Your task to perform on an android device: turn on priority inbox in the gmail app Image 0: 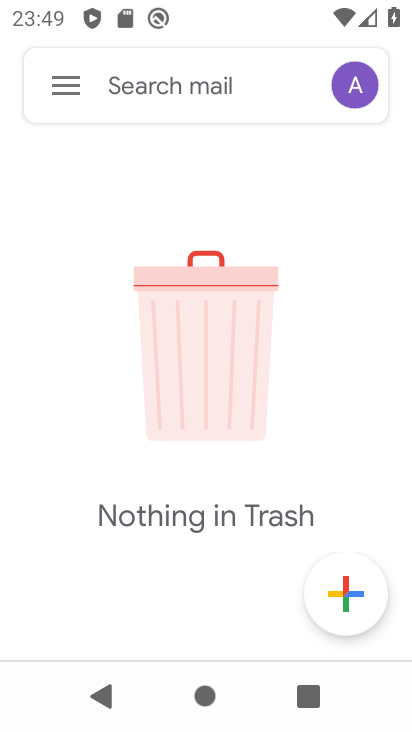
Step 0: press home button
Your task to perform on an android device: turn on priority inbox in the gmail app Image 1: 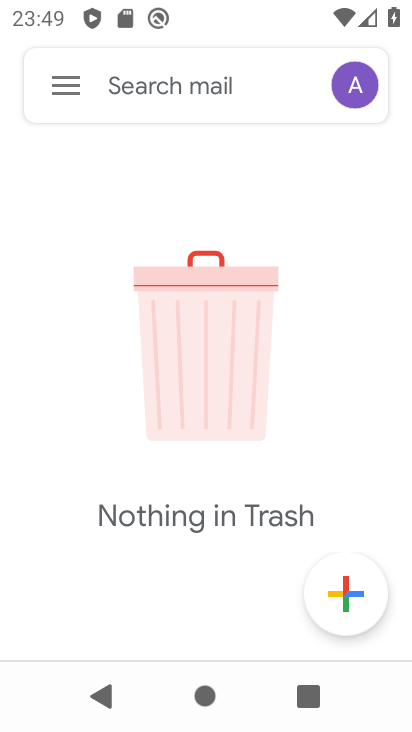
Step 1: press home button
Your task to perform on an android device: turn on priority inbox in the gmail app Image 2: 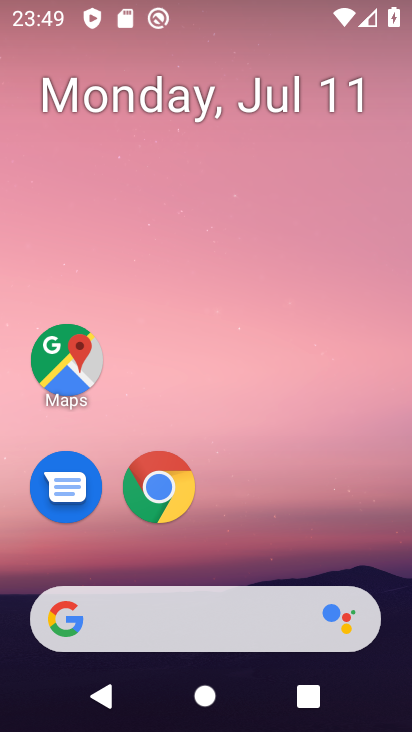
Step 2: press home button
Your task to perform on an android device: turn on priority inbox in the gmail app Image 3: 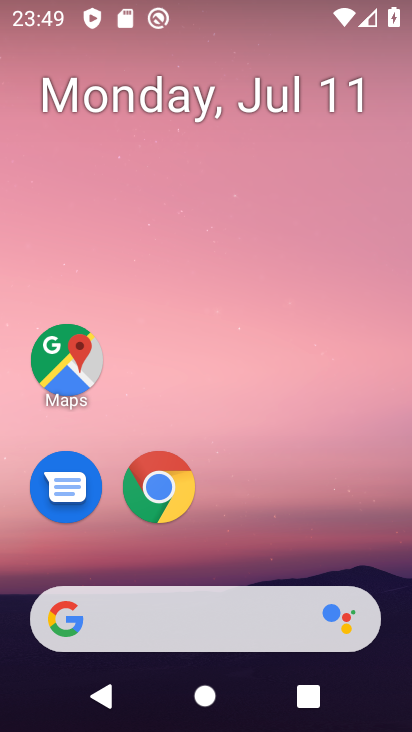
Step 3: drag from (331, 551) to (309, 127)
Your task to perform on an android device: turn on priority inbox in the gmail app Image 4: 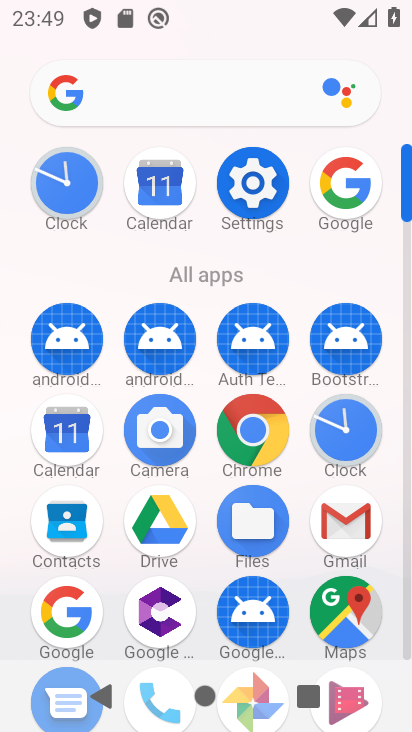
Step 4: click (343, 521)
Your task to perform on an android device: turn on priority inbox in the gmail app Image 5: 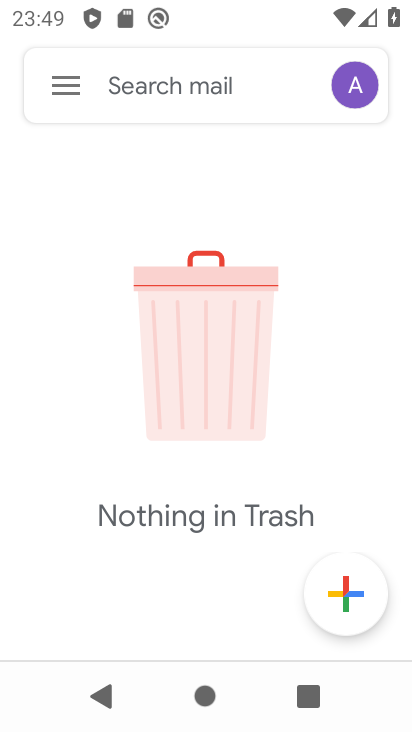
Step 5: click (55, 82)
Your task to perform on an android device: turn on priority inbox in the gmail app Image 6: 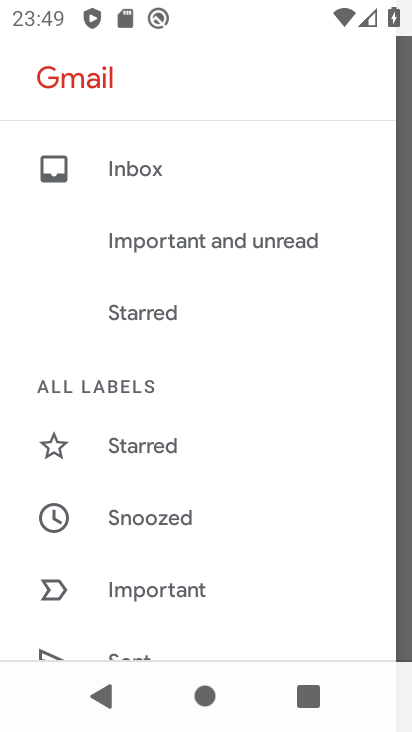
Step 6: drag from (308, 563) to (301, 214)
Your task to perform on an android device: turn on priority inbox in the gmail app Image 7: 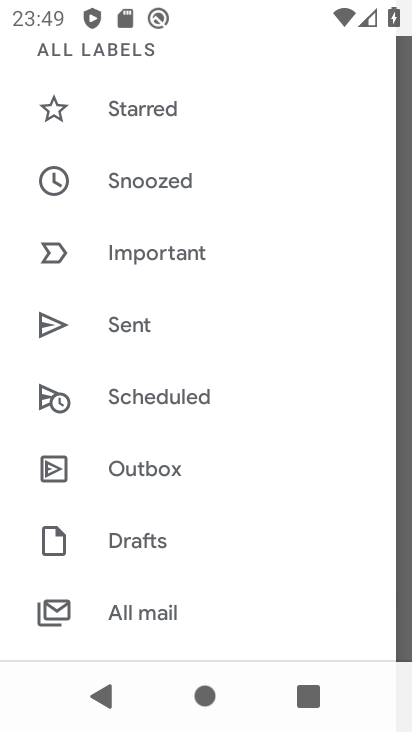
Step 7: drag from (310, 477) to (299, 192)
Your task to perform on an android device: turn on priority inbox in the gmail app Image 8: 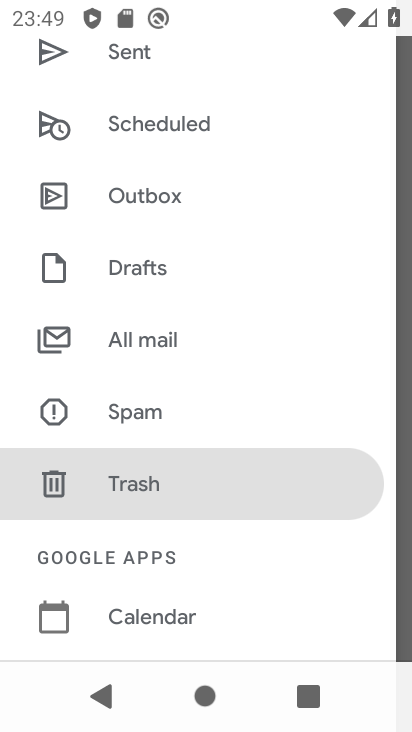
Step 8: drag from (291, 575) to (287, 356)
Your task to perform on an android device: turn on priority inbox in the gmail app Image 9: 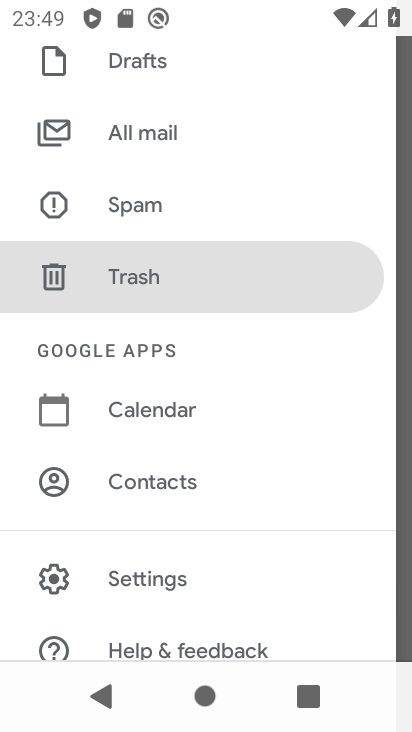
Step 9: drag from (311, 557) to (328, 404)
Your task to perform on an android device: turn on priority inbox in the gmail app Image 10: 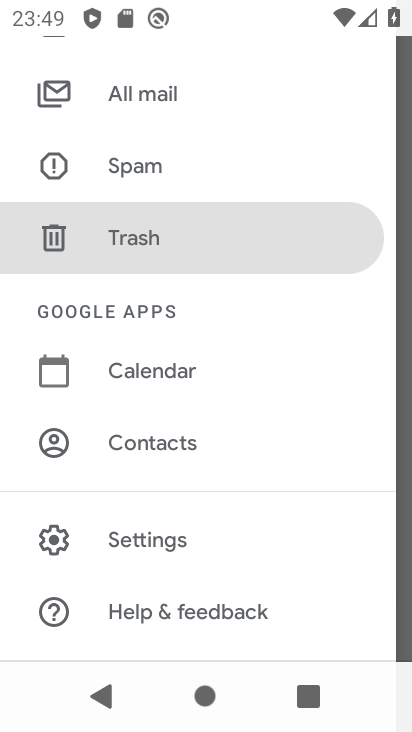
Step 10: click (181, 531)
Your task to perform on an android device: turn on priority inbox in the gmail app Image 11: 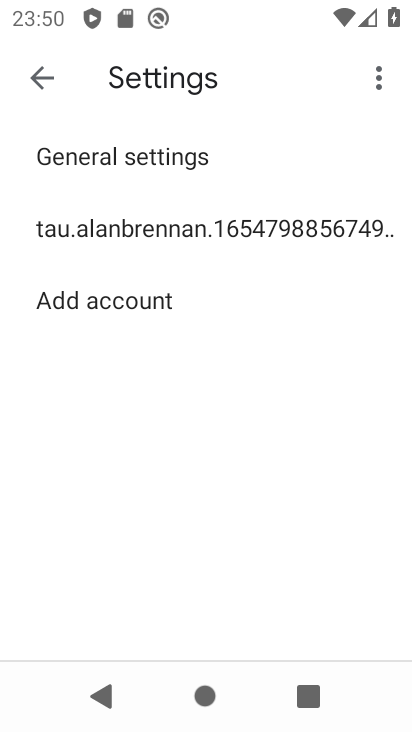
Step 11: click (266, 235)
Your task to perform on an android device: turn on priority inbox in the gmail app Image 12: 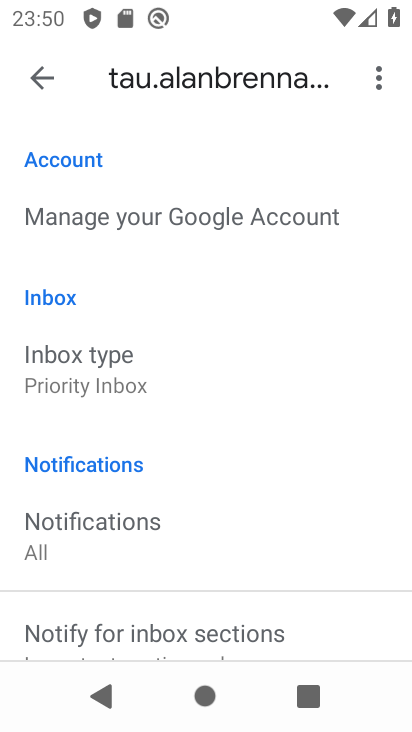
Step 12: task complete